Your task to perform on an android device: turn off location Image 0: 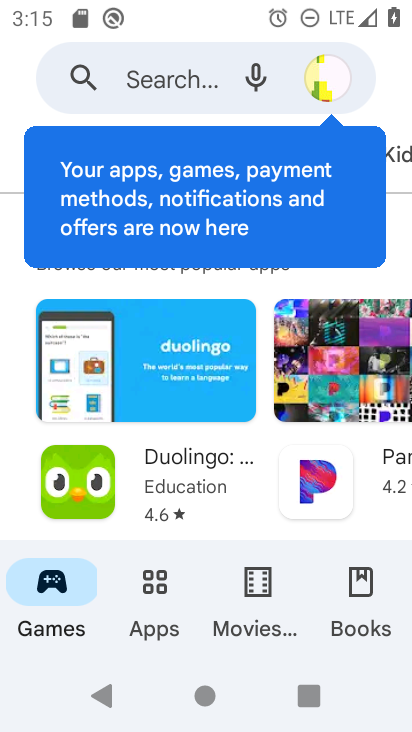
Step 0: press home button
Your task to perform on an android device: turn off location Image 1: 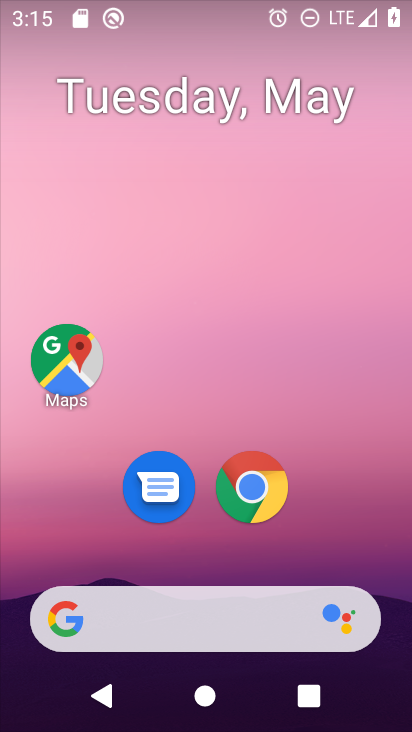
Step 1: drag from (24, 635) to (301, 76)
Your task to perform on an android device: turn off location Image 2: 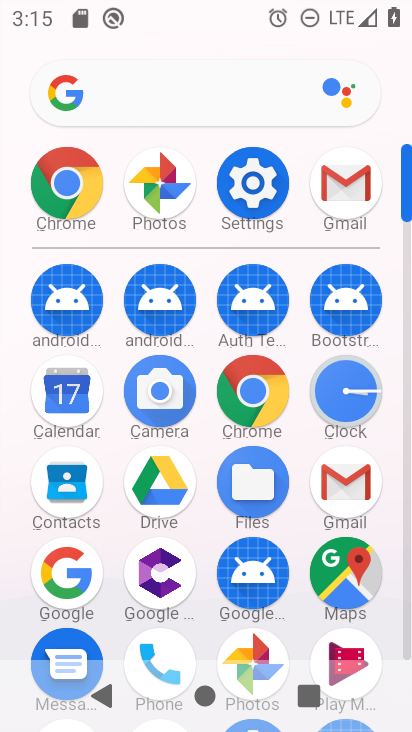
Step 2: click (266, 189)
Your task to perform on an android device: turn off location Image 3: 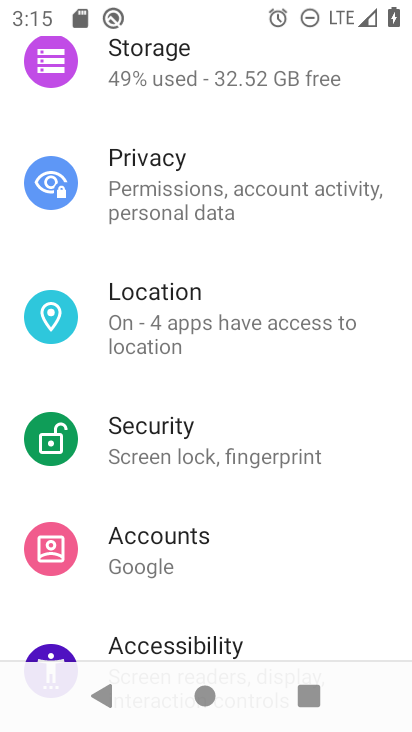
Step 3: click (197, 335)
Your task to perform on an android device: turn off location Image 4: 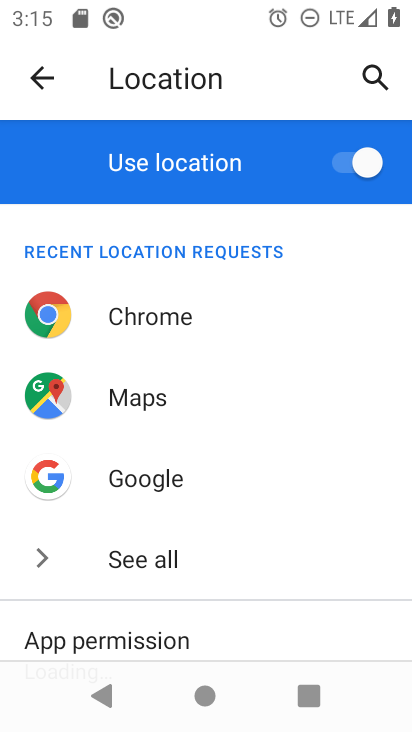
Step 4: click (361, 169)
Your task to perform on an android device: turn off location Image 5: 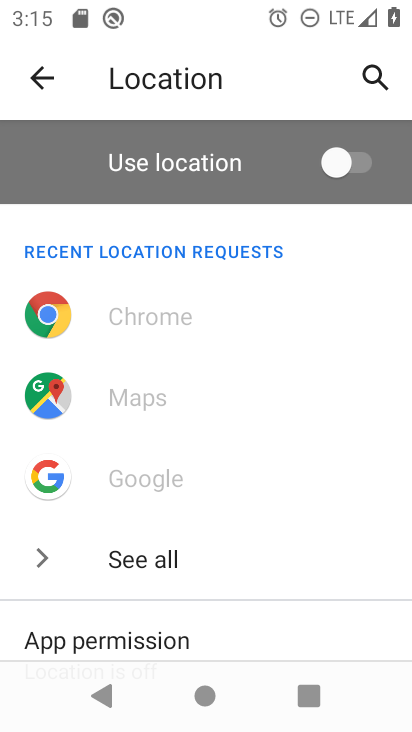
Step 5: task complete